Your task to perform on an android device: Play the new Ed Sheeran video on YouTube Image 0: 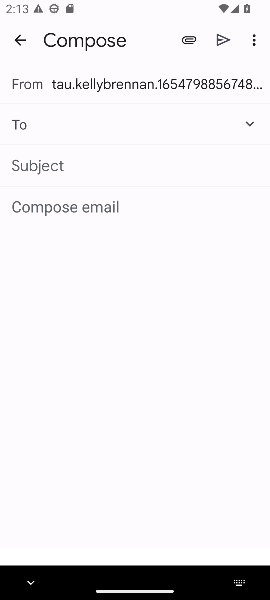
Step 0: press home button
Your task to perform on an android device: Play the new Ed Sheeran video on YouTube Image 1: 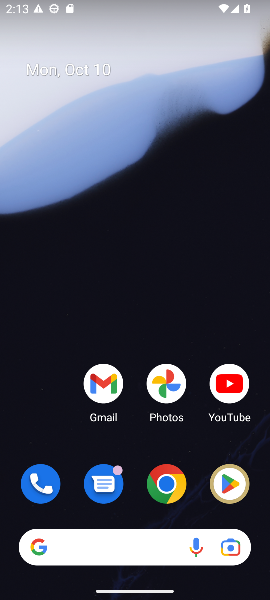
Step 1: click (233, 389)
Your task to perform on an android device: Play the new Ed Sheeran video on YouTube Image 2: 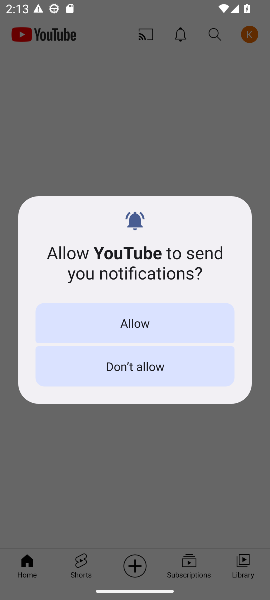
Step 2: click (140, 322)
Your task to perform on an android device: Play the new Ed Sheeran video on YouTube Image 3: 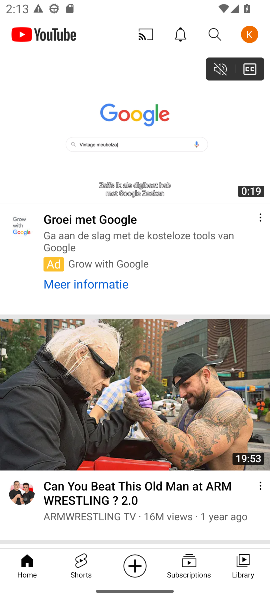
Step 3: click (219, 34)
Your task to perform on an android device: Play the new Ed Sheeran video on YouTube Image 4: 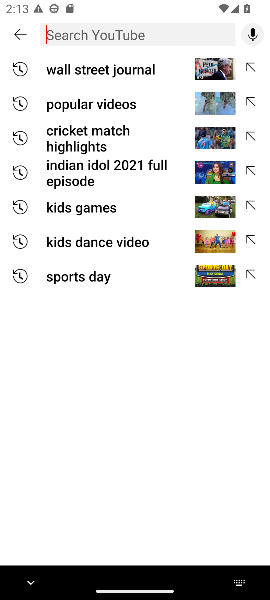
Step 4: type "new ed sheeran video"
Your task to perform on an android device: Play the new Ed Sheeran video on YouTube Image 5: 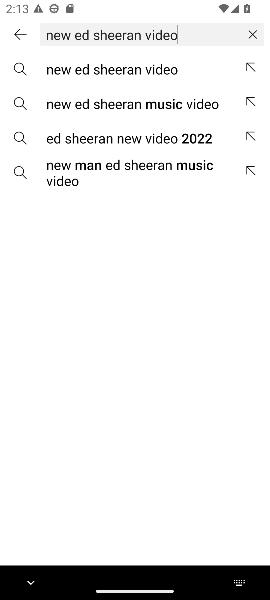
Step 5: click (156, 71)
Your task to perform on an android device: Play the new Ed Sheeran video on YouTube Image 6: 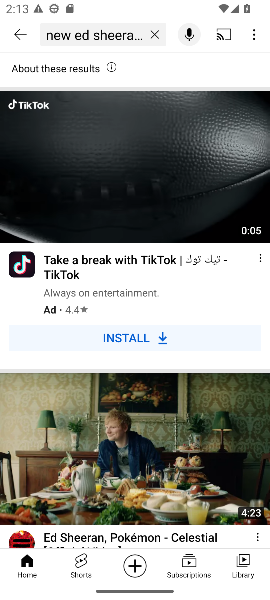
Step 6: drag from (231, 406) to (196, 318)
Your task to perform on an android device: Play the new Ed Sheeran video on YouTube Image 7: 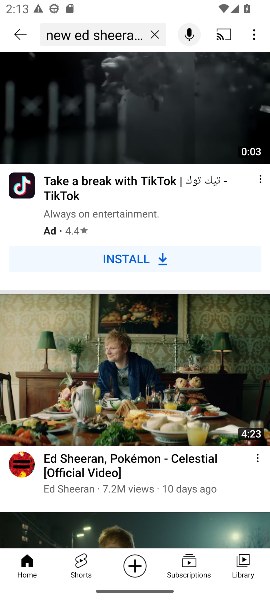
Step 7: click (196, 332)
Your task to perform on an android device: Play the new Ed Sheeran video on YouTube Image 8: 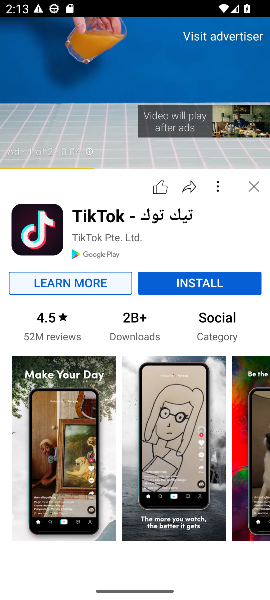
Step 8: click (254, 183)
Your task to perform on an android device: Play the new Ed Sheeran video on YouTube Image 9: 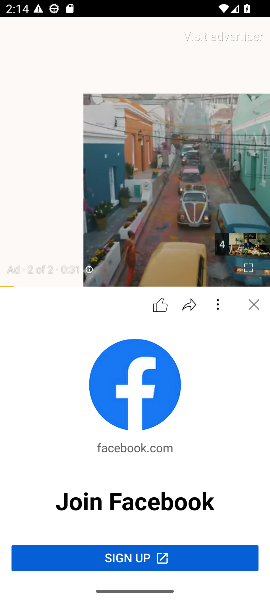
Step 9: click (259, 307)
Your task to perform on an android device: Play the new Ed Sheeran video on YouTube Image 10: 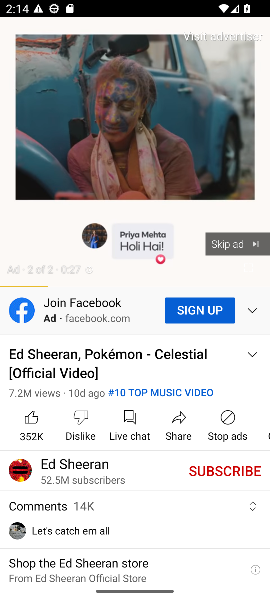
Step 10: click (241, 247)
Your task to perform on an android device: Play the new Ed Sheeran video on YouTube Image 11: 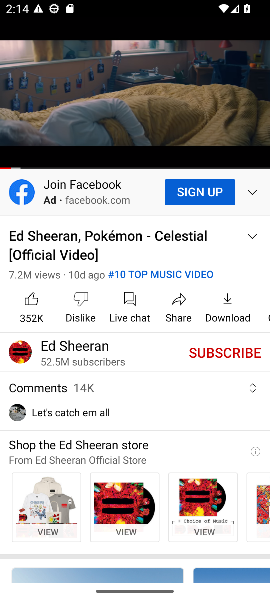
Step 11: task complete